Your task to perform on an android device: change your default location settings in chrome Image 0: 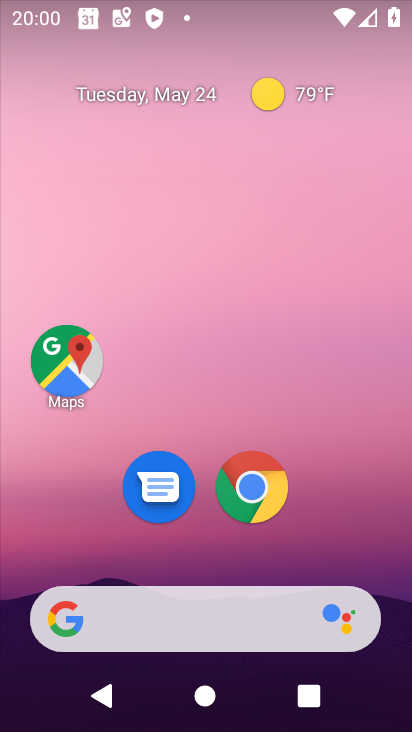
Step 0: click (247, 486)
Your task to perform on an android device: change your default location settings in chrome Image 1: 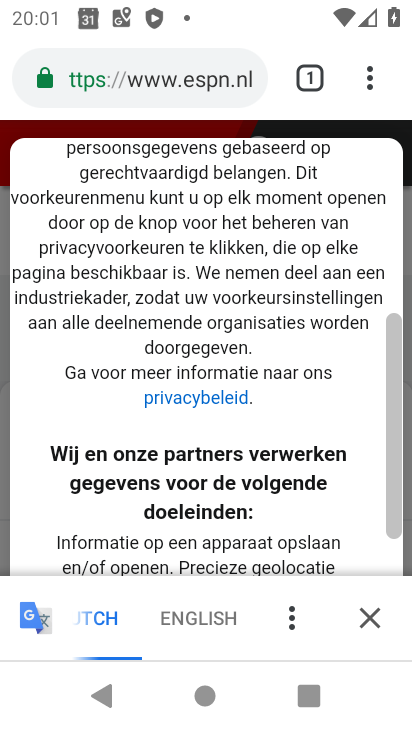
Step 1: click (364, 78)
Your task to perform on an android device: change your default location settings in chrome Image 2: 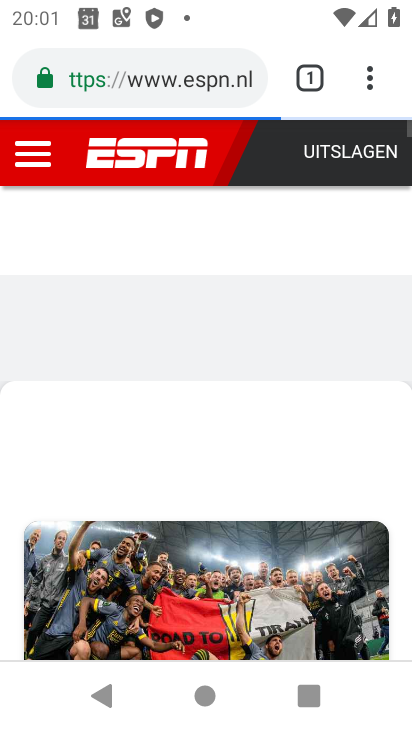
Step 2: click (373, 82)
Your task to perform on an android device: change your default location settings in chrome Image 3: 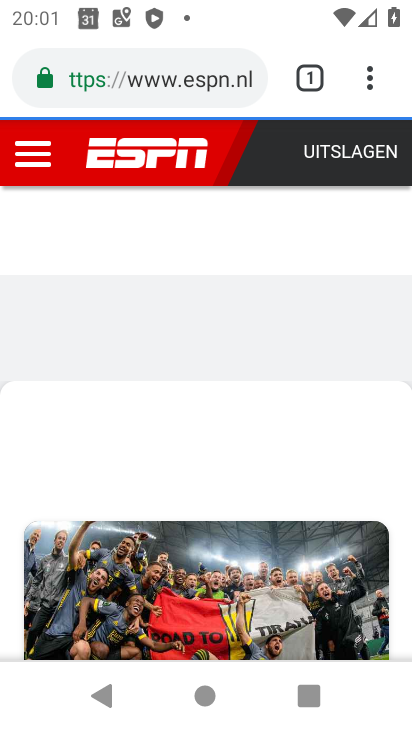
Step 3: click (381, 82)
Your task to perform on an android device: change your default location settings in chrome Image 4: 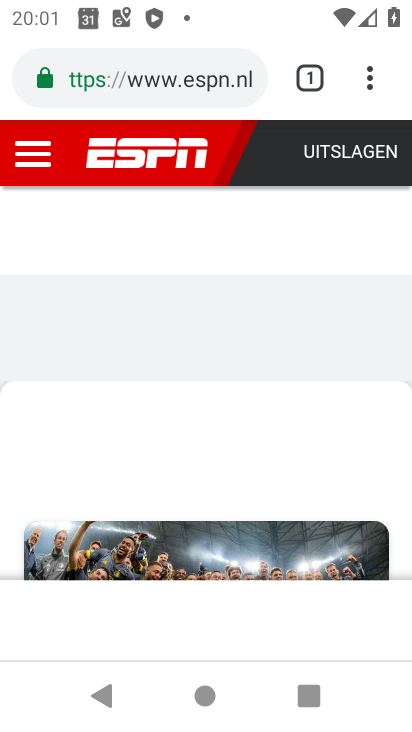
Step 4: click (362, 79)
Your task to perform on an android device: change your default location settings in chrome Image 5: 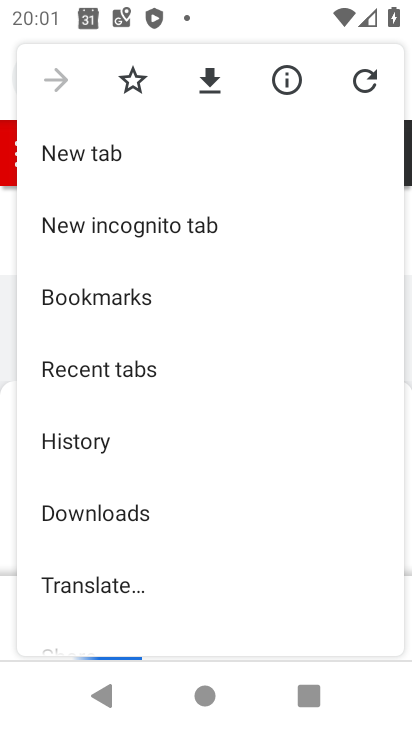
Step 5: drag from (176, 596) to (288, 114)
Your task to perform on an android device: change your default location settings in chrome Image 6: 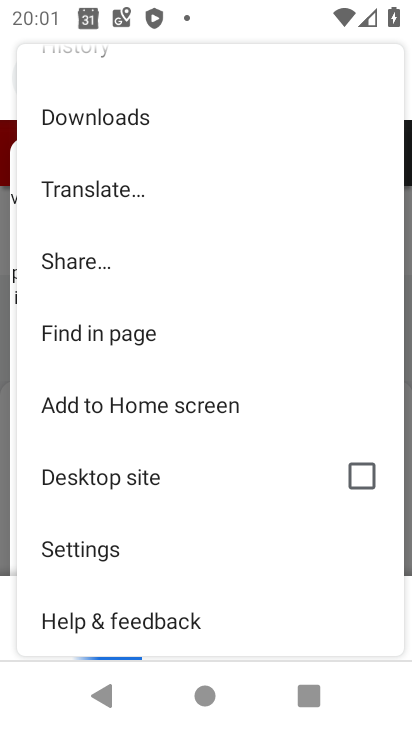
Step 6: click (67, 543)
Your task to perform on an android device: change your default location settings in chrome Image 7: 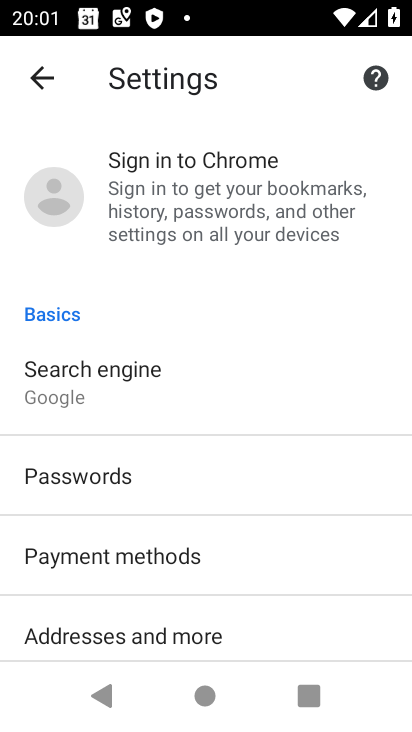
Step 7: drag from (15, 507) to (233, 119)
Your task to perform on an android device: change your default location settings in chrome Image 8: 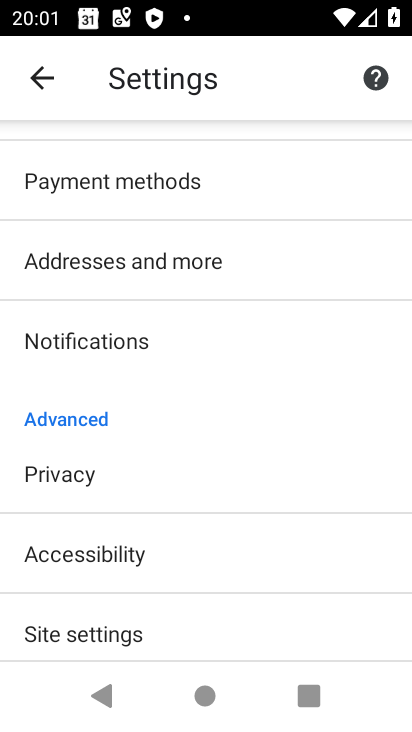
Step 8: click (131, 624)
Your task to perform on an android device: change your default location settings in chrome Image 9: 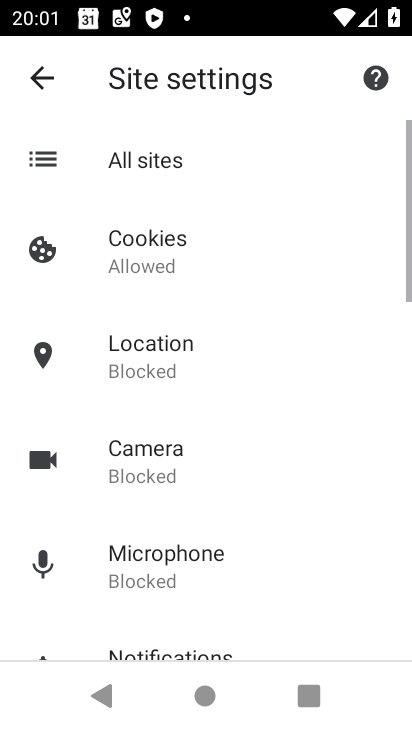
Step 9: click (174, 345)
Your task to perform on an android device: change your default location settings in chrome Image 10: 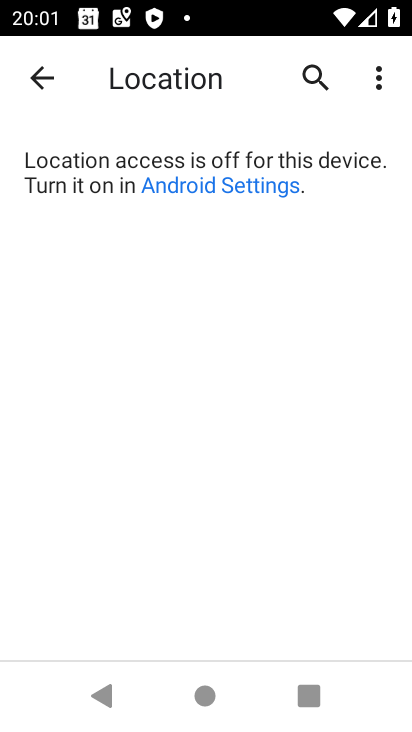
Step 10: click (234, 182)
Your task to perform on an android device: change your default location settings in chrome Image 11: 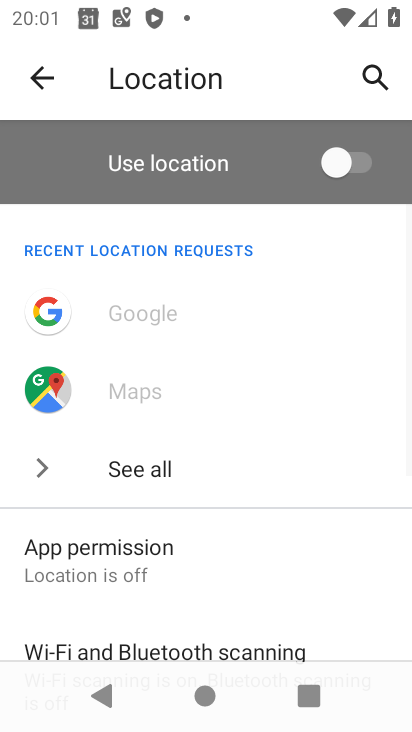
Step 11: click (343, 172)
Your task to perform on an android device: change your default location settings in chrome Image 12: 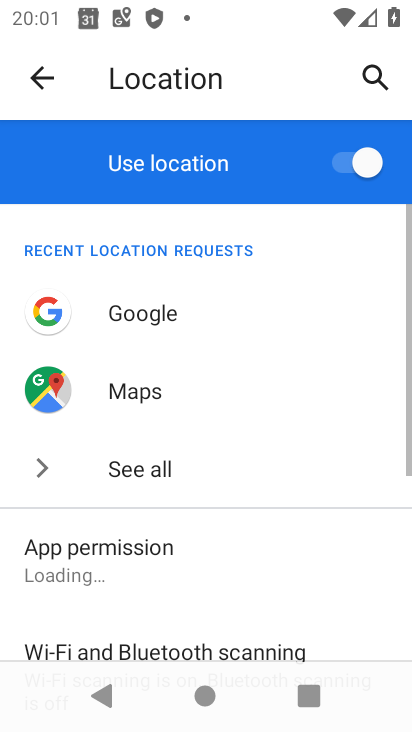
Step 12: task complete